Your task to perform on an android device: Open Google Maps and go to "Timeline" Image 0: 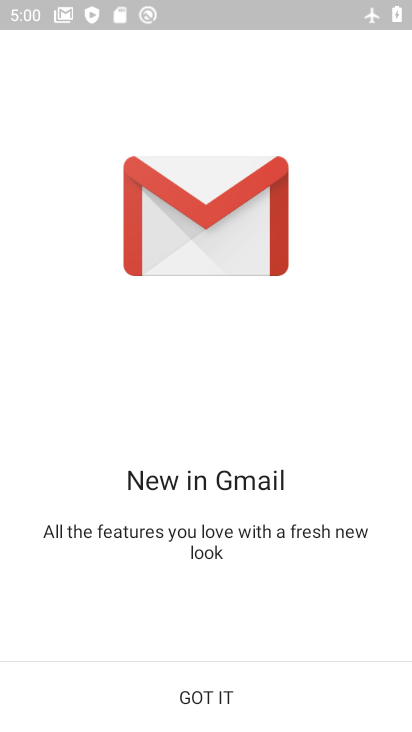
Step 0: drag from (228, 637) to (219, 120)
Your task to perform on an android device: Open Google Maps and go to "Timeline" Image 1: 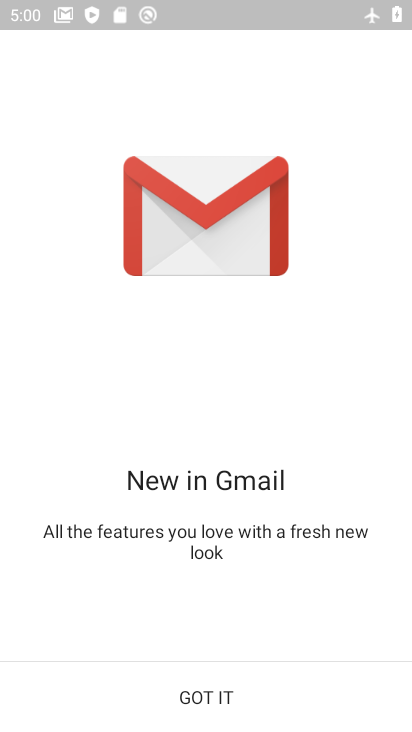
Step 1: press back button
Your task to perform on an android device: Open Google Maps and go to "Timeline" Image 2: 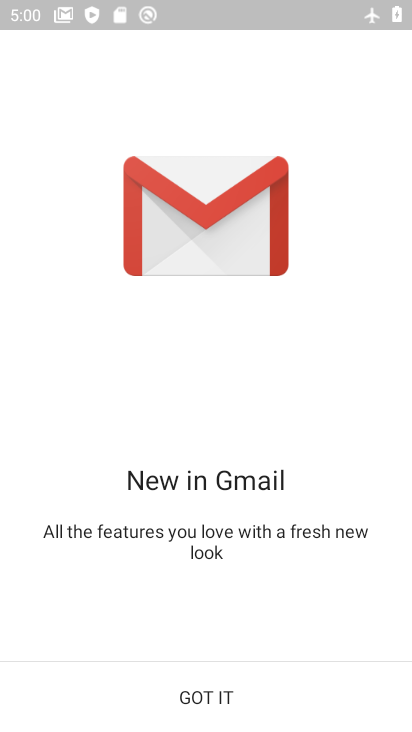
Step 2: press back button
Your task to perform on an android device: Open Google Maps and go to "Timeline" Image 3: 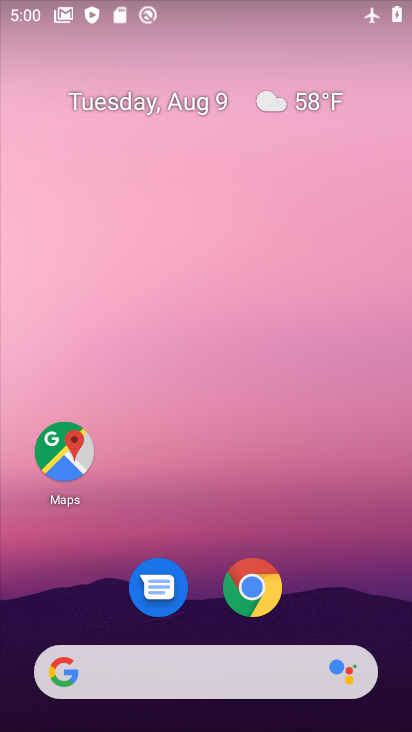
Step 3: drag from (159, 541) to (194, 1)
Your task to perform on an android device: Open Google Maps and go to "Timeline" Image 4: 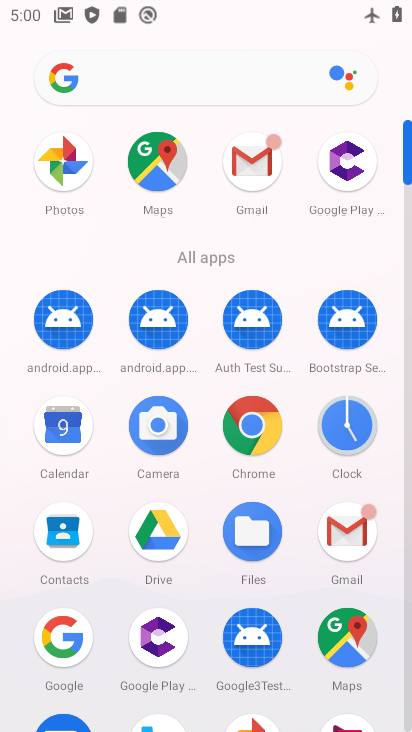
Step 4: click (157, 181)
Your task to perform on an android device: Open Google Maps and go to "Timeline" Image 5: 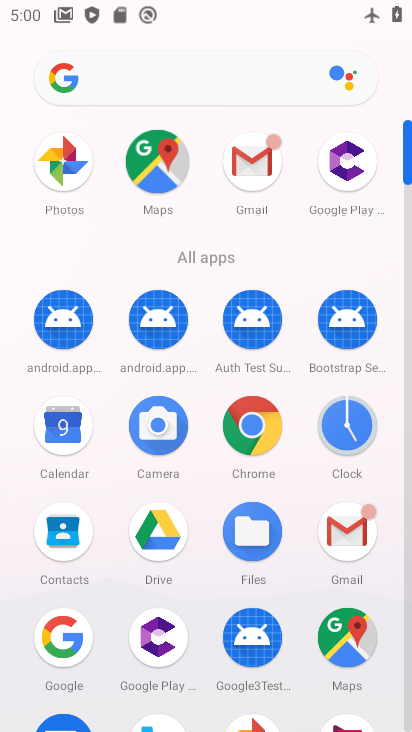
Step 5: click (157, 180)
Your task to perform on an android device: Open Google Maps and go to "Timeline" Image 6: 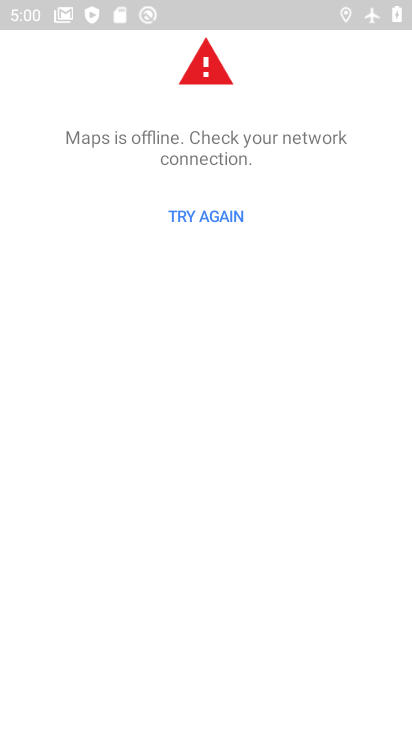
Step 6: click (159, 179)
Your task to perform on an android device: Open Google Maps and go to "Timeline" Image 7: 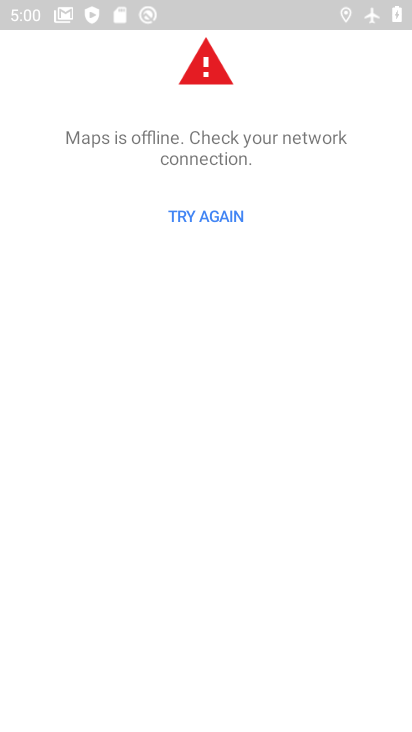
Step 7: task complete